Your task to perform on an android device: Turn off the flashlight Image 0: 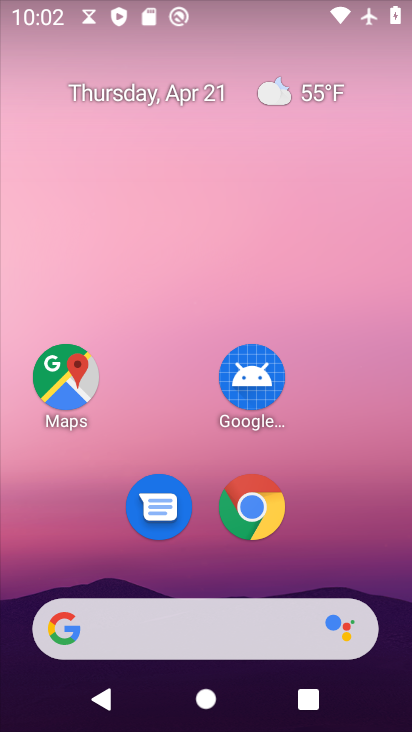
Step 0: drag from (313, 482) to (313, 215)
Your task to perform on an android device: Turn off the flashlight Image 1: 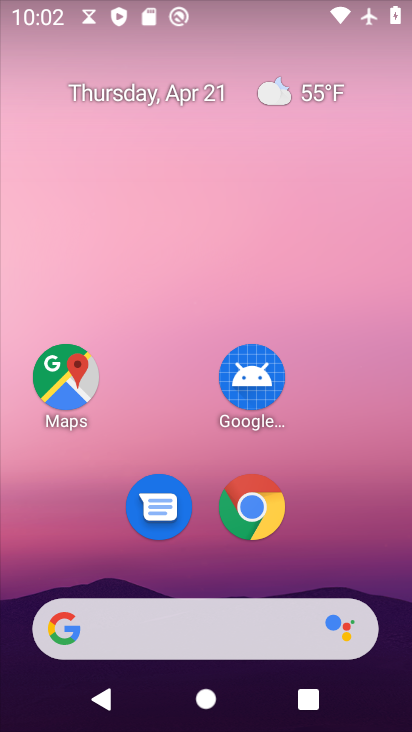
Step 1: drag from (308, 578) to (317, 192)
Your task to perform on an android device: Turn off the flashlight Image 2: 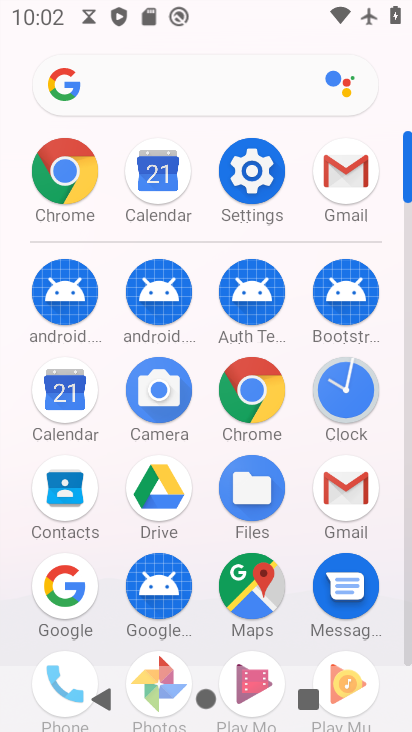
Step 2: click (261, 170)
Your task to perform on an android device: Turn off the flashlight Image 3: 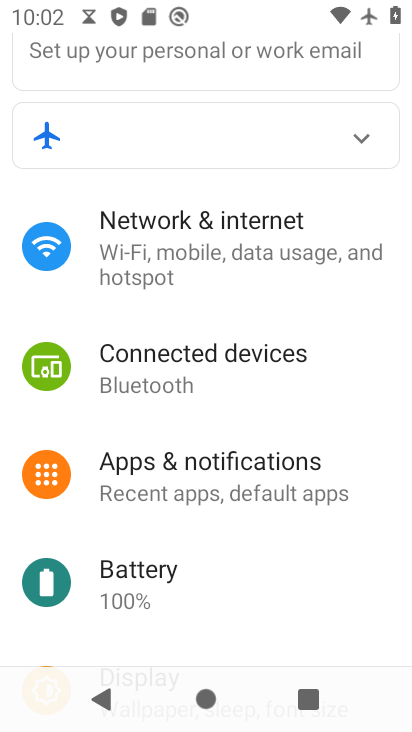
Step 3: task complete